Your task to perform on an android device: Open Google Image 0: 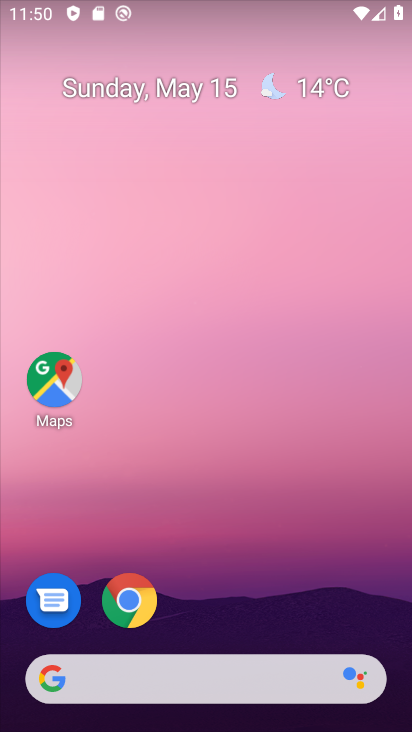
Step 0: drag from (282, 584) to (242, 14)
Your task to perform on an android device: Open Google Image 1: 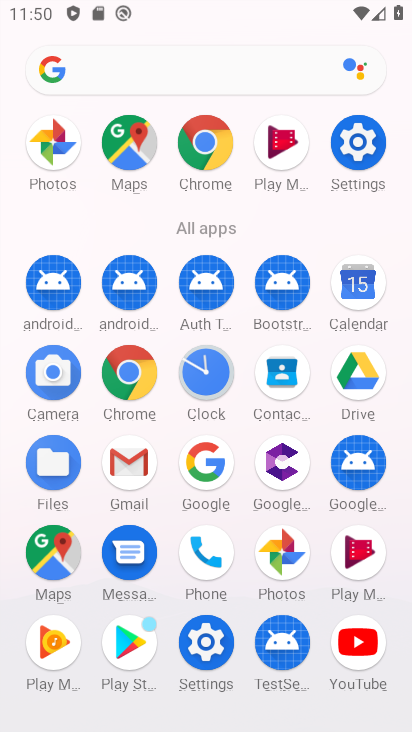
Step 1: click (130, 370)
Your task to perform on an android device: Open Google Image 2: 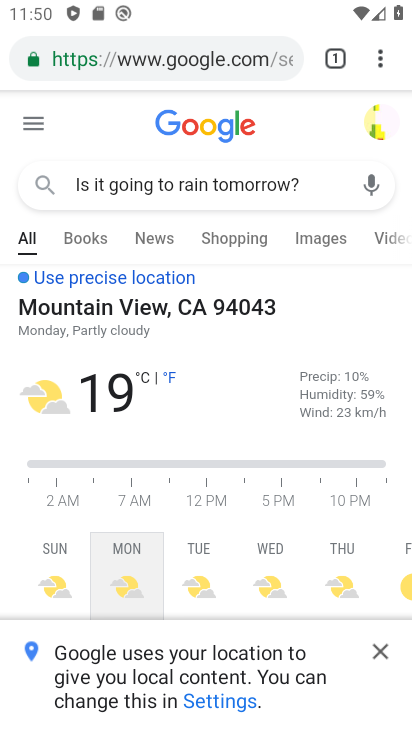
Step 2: click (214, 49)
Your task to perform on an android device: Open Google Image 3: 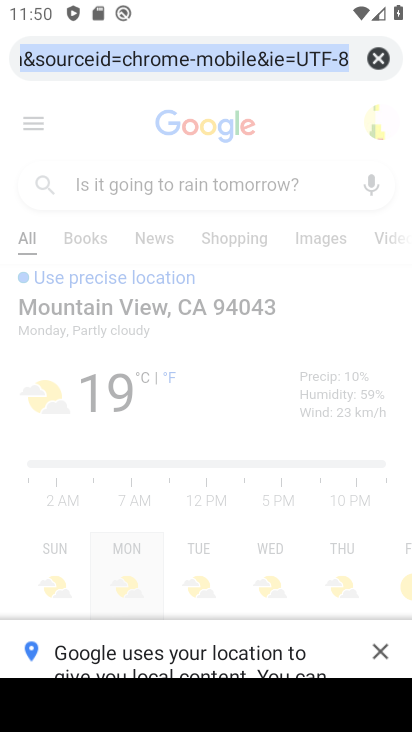
Step 3: click (384, 60)
Your task to perform on an android device: Open Google Image 4: 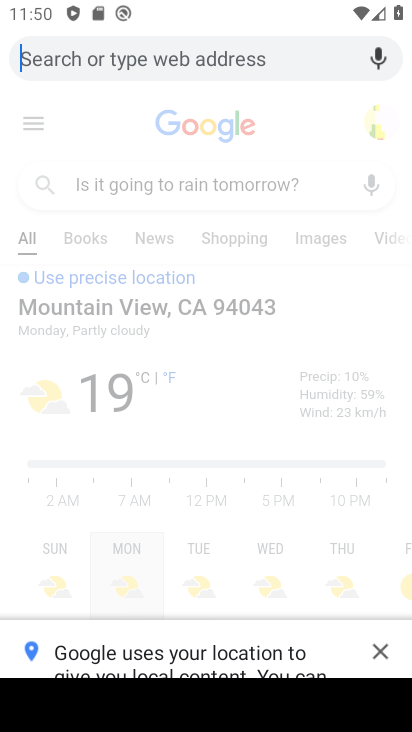
Step 4: type "Google"
Your task to perform on an android device: Open Google Image 5: 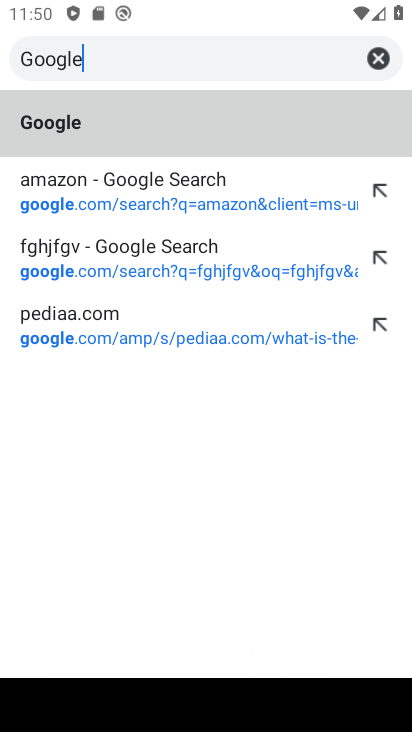
Step 5: type ""
Your task to perform on an android device: Open Google Image 6: 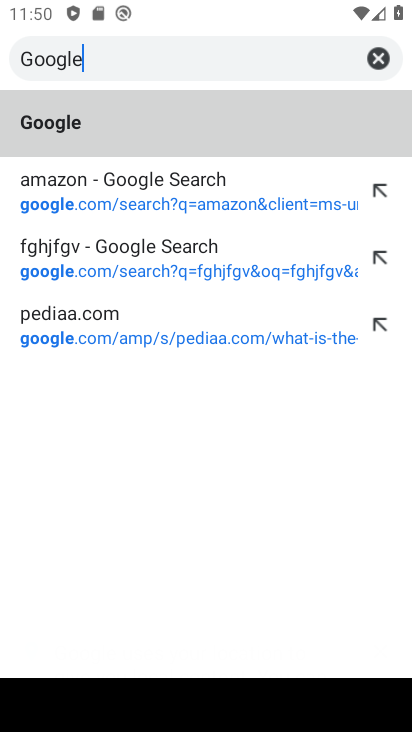
Step 6: click (122, 130)
Your task to perform on an android device: Open Google Image 7: 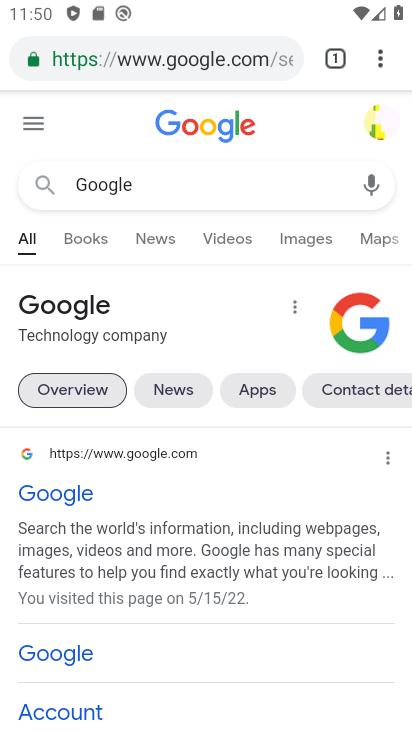
Step 7: click (57, 497)
Your task to perform on an android device: Open Google Image 8: 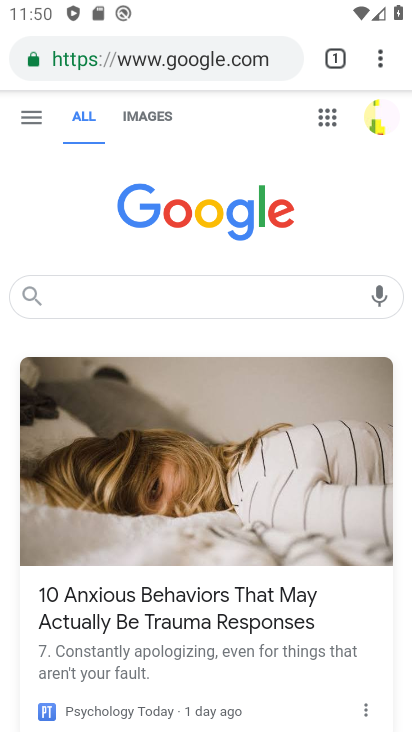
Step 8: task complete